Your task to perform on an android device: Open internet settings Image 0: 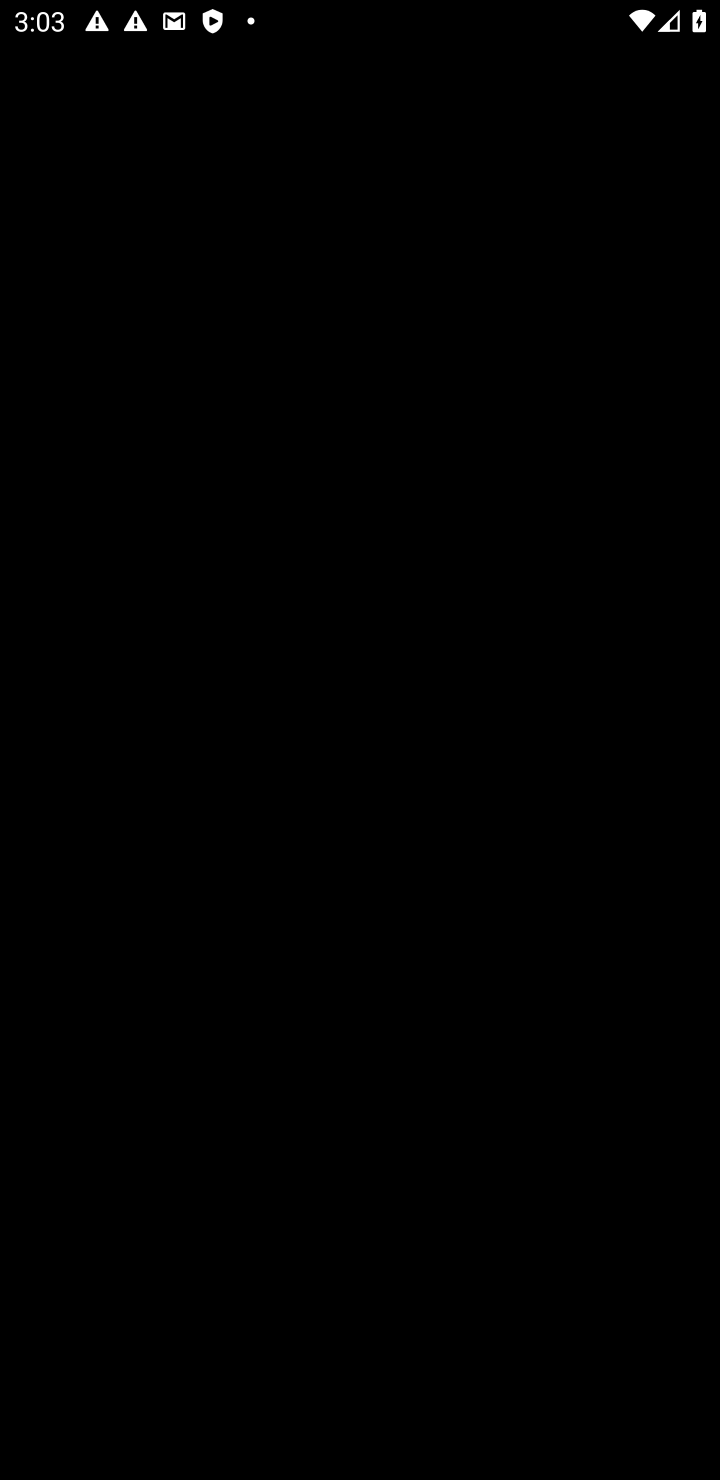
Step 0: press home button
Your task to perform on an android device: Open internet settings Image 1: 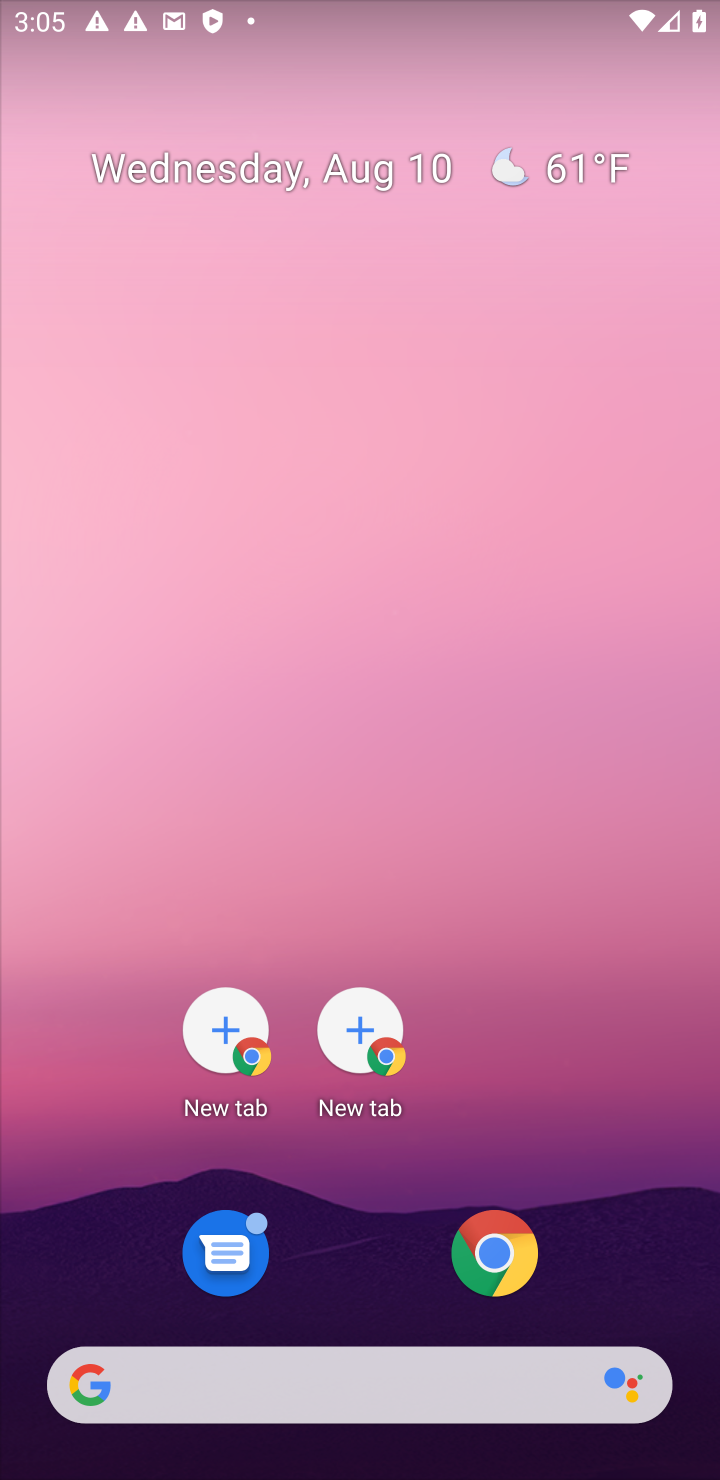
Step 1: drag from (429, 465) to (474, 216)
Your task to perform on an android device: Open internet settings Image 2: 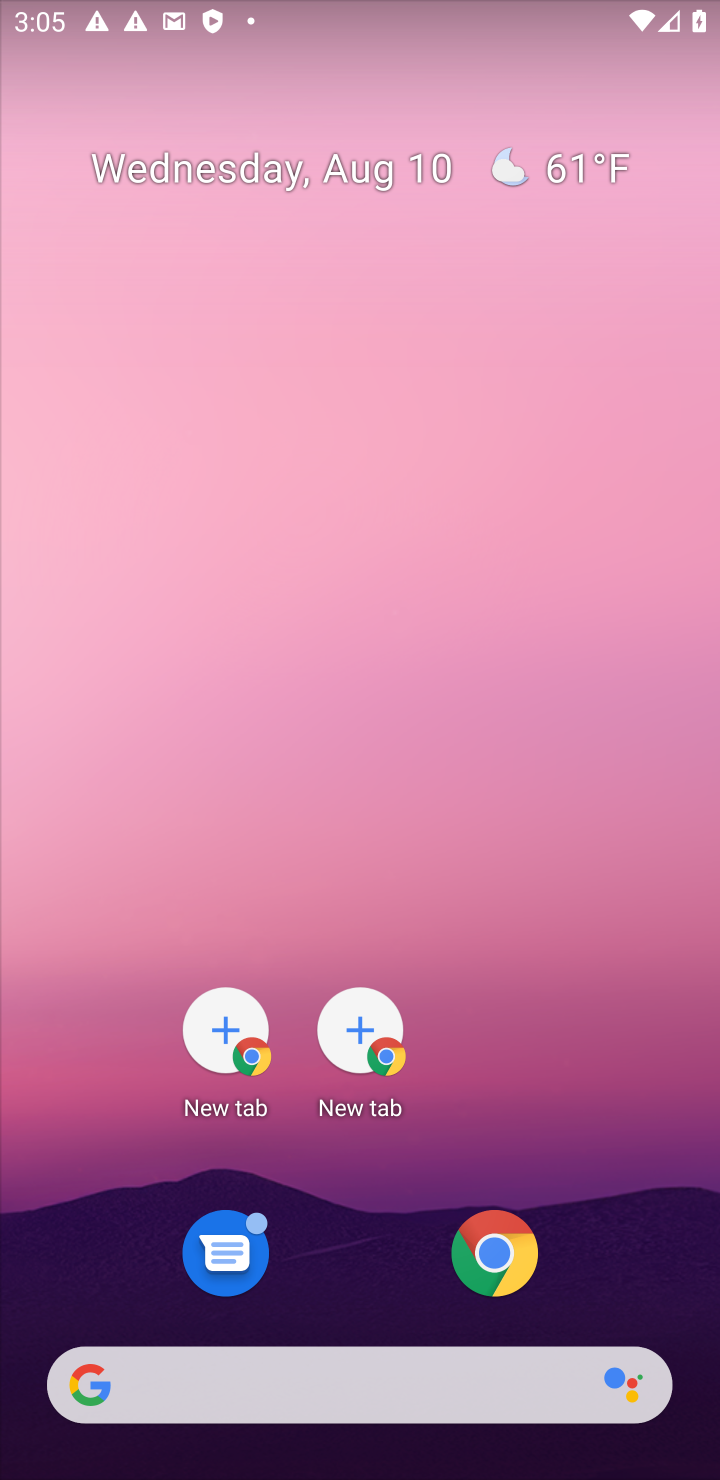
Step 2: drag from (590, 1094) to (625, 305)
Your task to perform on an android device: Open internet settings Image 3: 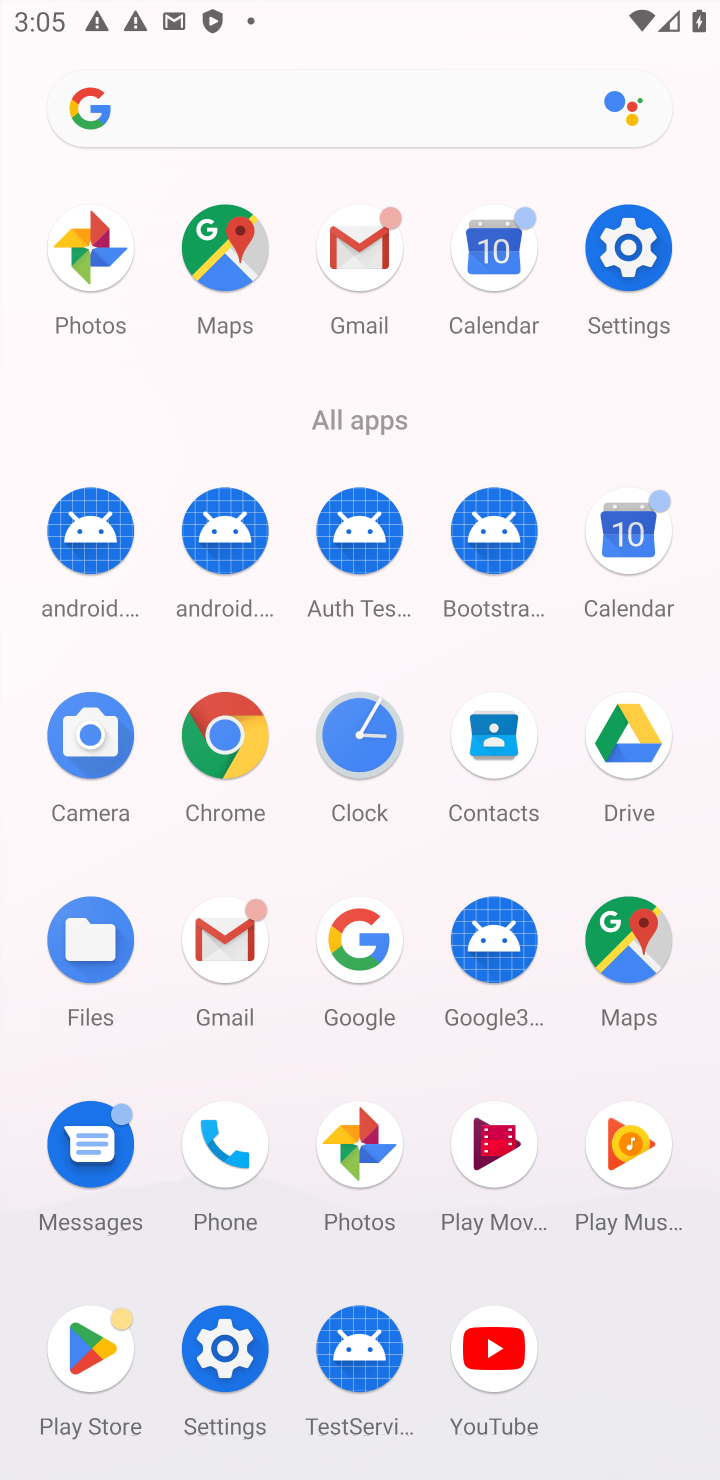
Step 3: click (631, 269)
Your task to perform on an android device: Open internet settings Image 4: 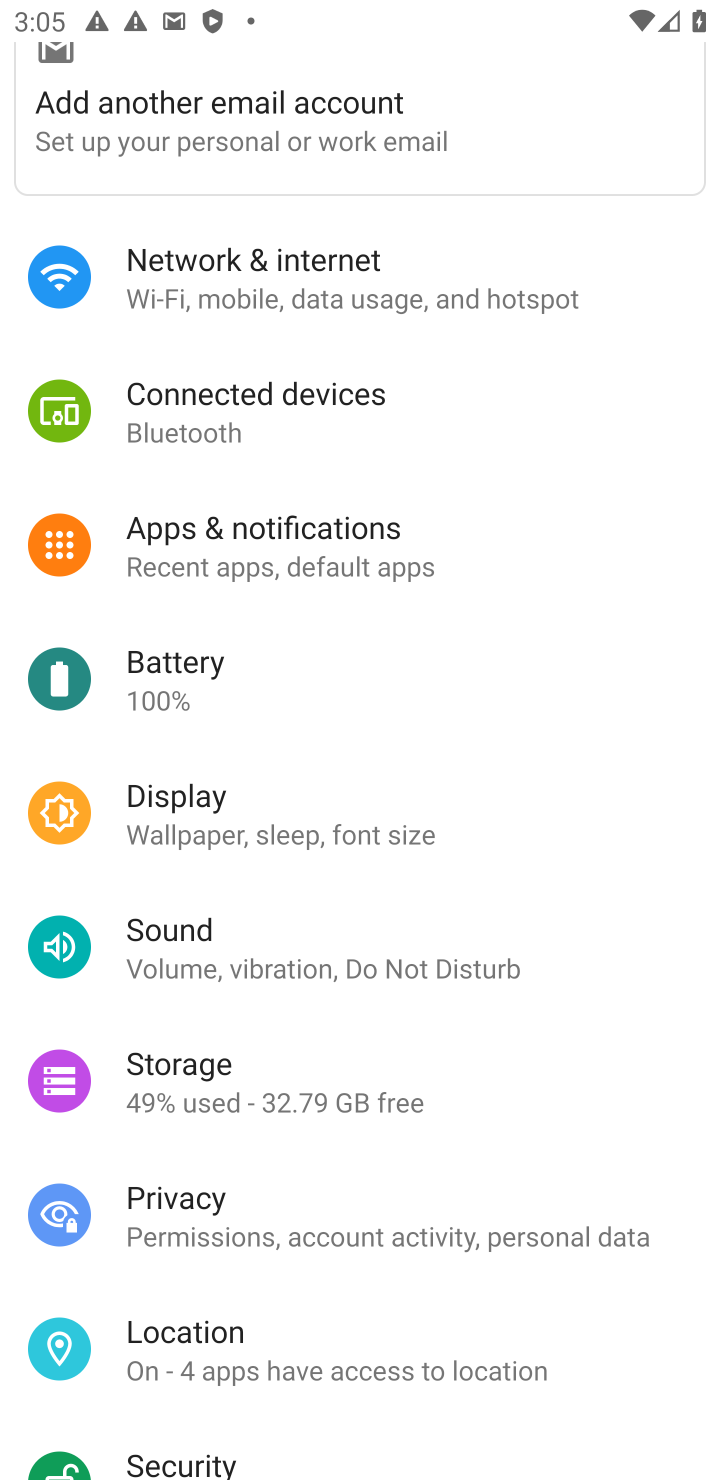
Step 4: click (405, 281)
Your task to perform on an android device: Open internet settings Image 5: 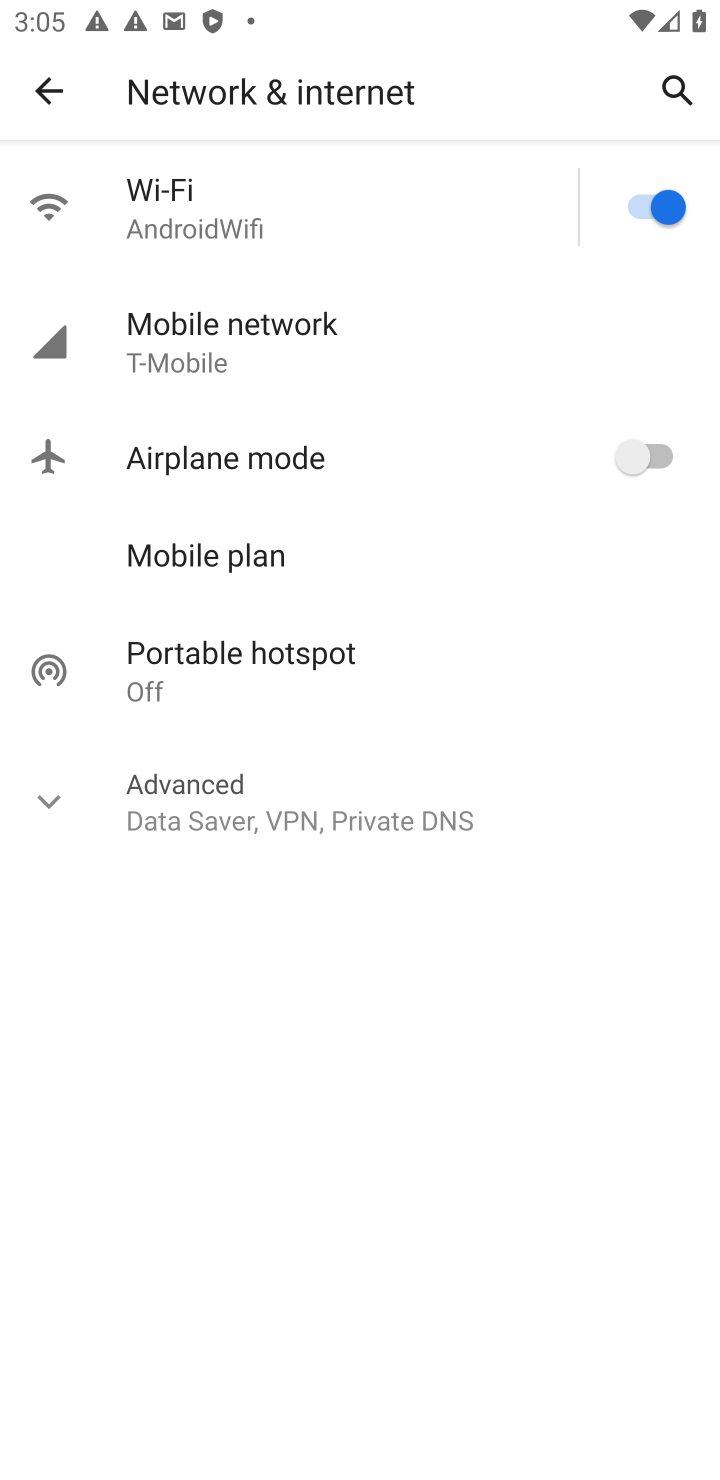
Step 5: task complete